Your task to perform on an android device: open a bookmark in the chrome app Image 0: 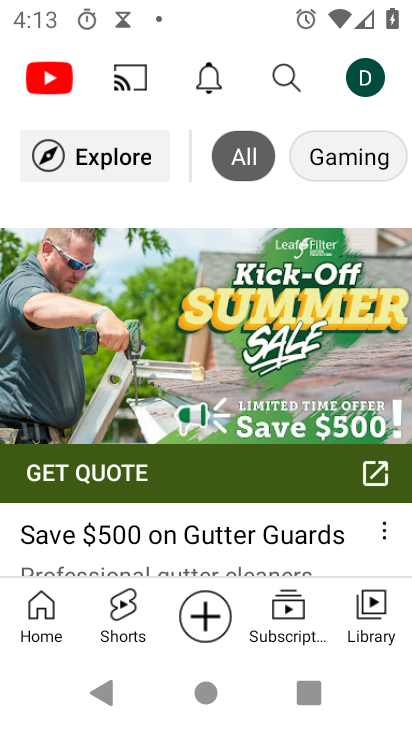
Step 0: press home button
Your task to perform on an android device: open a bookmark in the chrome app Image 1: 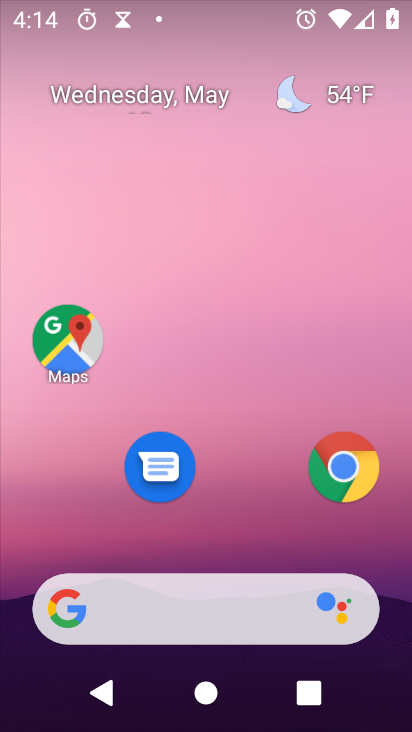
Step 1: click (346, 463)
Your task to perform on an android device: open a bookmark in the chrome app Image 2: 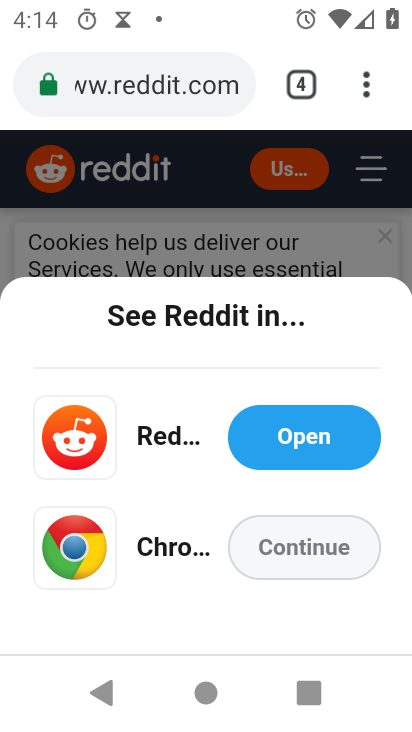
Step 2: click (371, 108)
Your task to perform on an android device: open a bookmark in the chrome app Image 3: 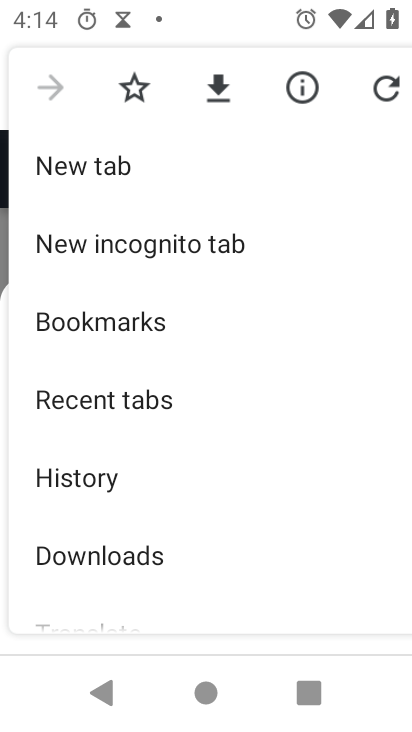
Step 3: click (228, 328)
Your task to perform on an android device: open a bookmark in the chrome app Image 4: 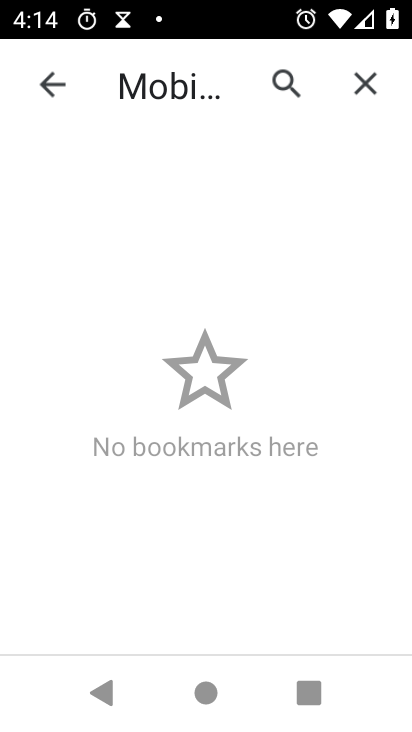
Step 4: task complete